Your task to perform on an android device: allow cookies in the chrome app Image 0: 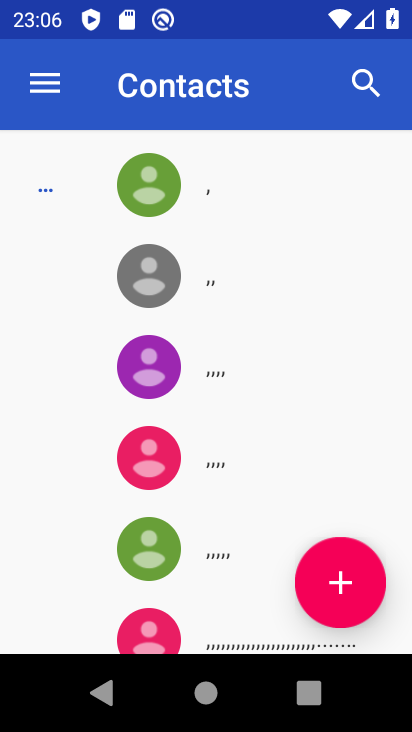
Step 0: press home button
Your task to perform on an android device: allow cookies in the chrome app Image 1: 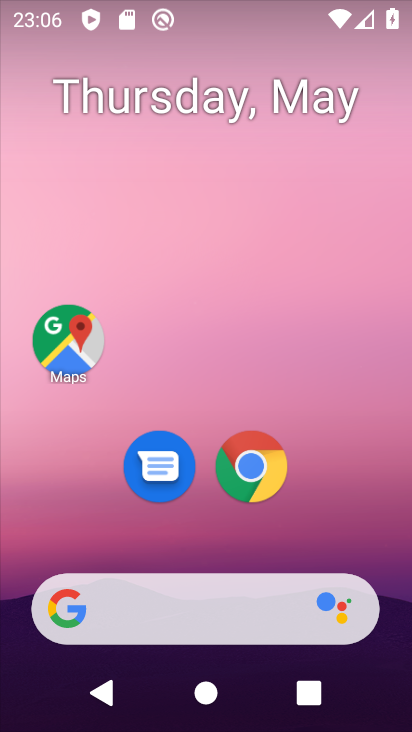
Step 1: click (243, 470)
Your task to perform on an android device: allow cookies in the chrome app Image 2: 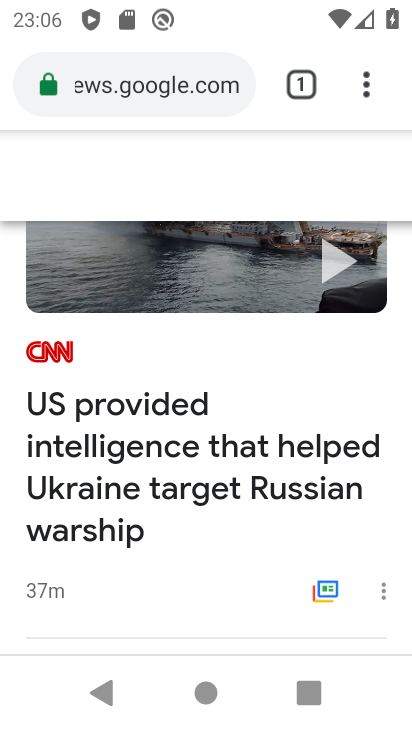
Step 2: drag from (360, 87) to (194, 533)
Your task to perform on an android device: allow cookies in the chrome app Image 3: 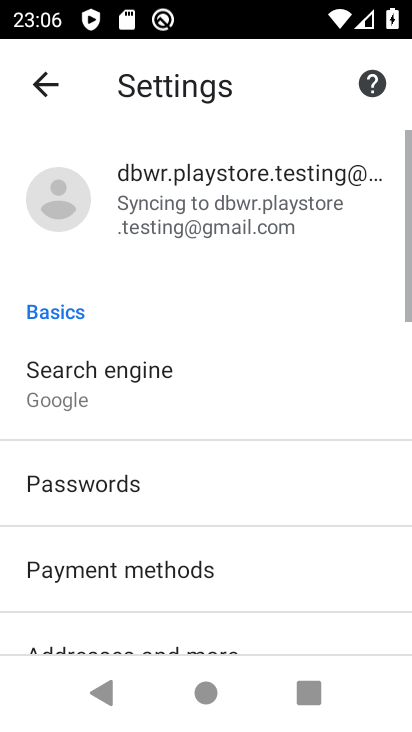
Step 3: drag from (186, 540) to (230, 154)
Your task to perform on an android device: allow cookies in the chrome app Image 4: 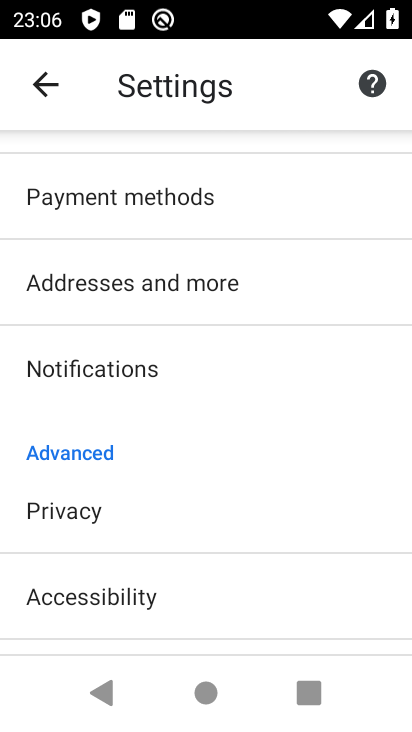
Step 4: drag from (183, 568) to (239, 192)
Your task to perform on an android device: allow cookies in the chrome app Image 5: 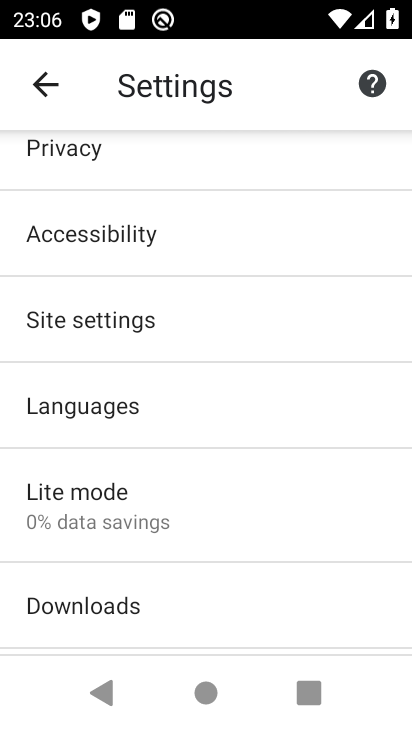
Step 5: click (160, 322)
Your task to perform on an android device: allow cookies in the chrome app Image 6: 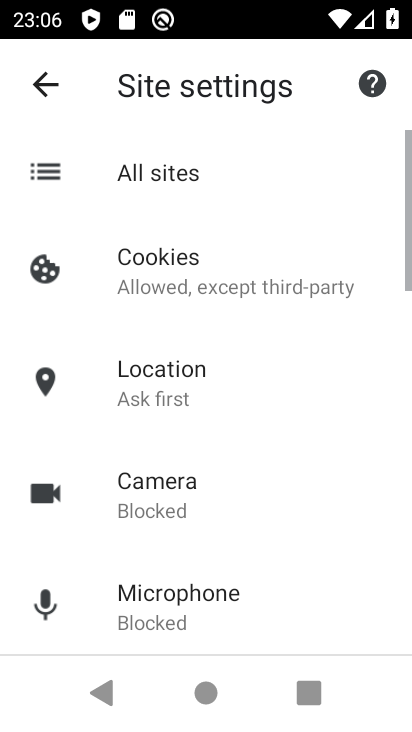
Step 6: click (202, 277)
Your task to perform on an android device: allow cookies in the chrome app Image 7: 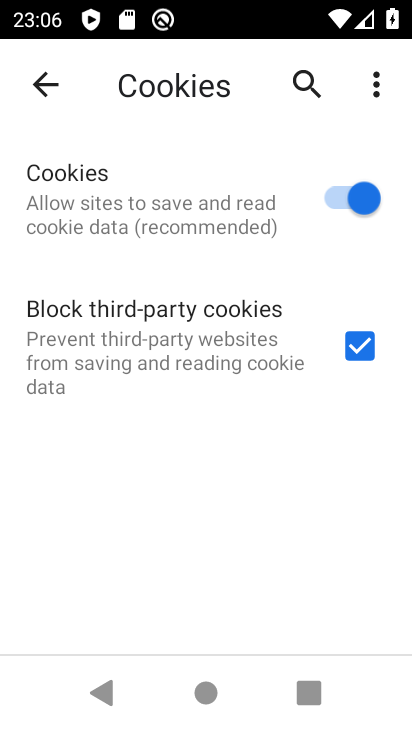
Step 7: task complete